Your task to perform on an android device: Open wifi settings Image 0: 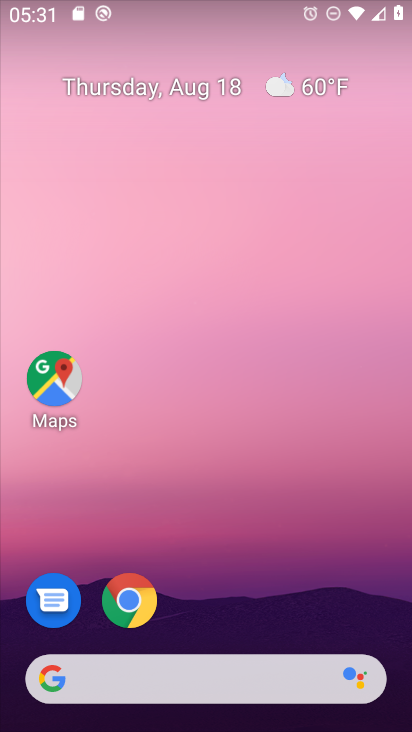
Step 0: press home button
Your task to perform on an android device: Open wifi settings Image 1: 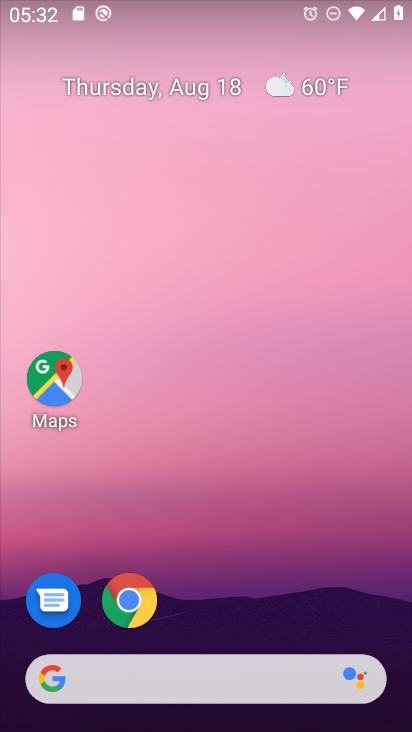
Step 1: drag from (231, 530) to (186, 4)
Your task to perform on an android device: Open wifi settings Image 2: 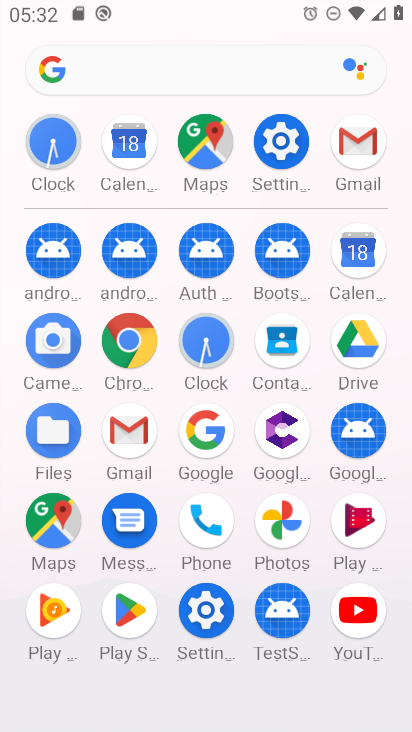
Step 2: click (275, 157)
Your task to perform on an android device: Open wifi settings Image 3: 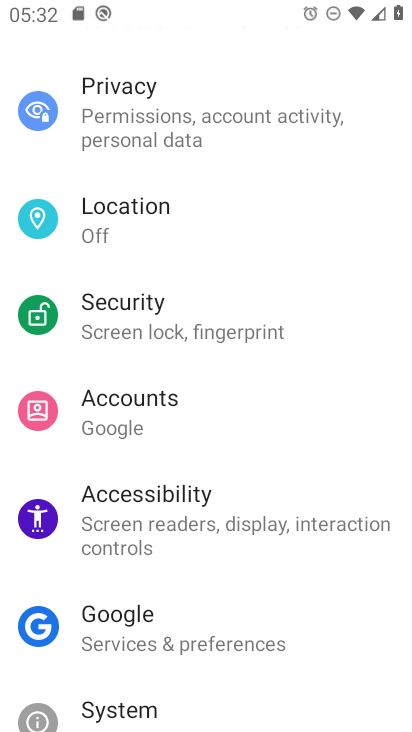
Step 3: drag from (265, 246) to (277, 728)
Your task to perform on an android device: Open wifi settings Image 4: 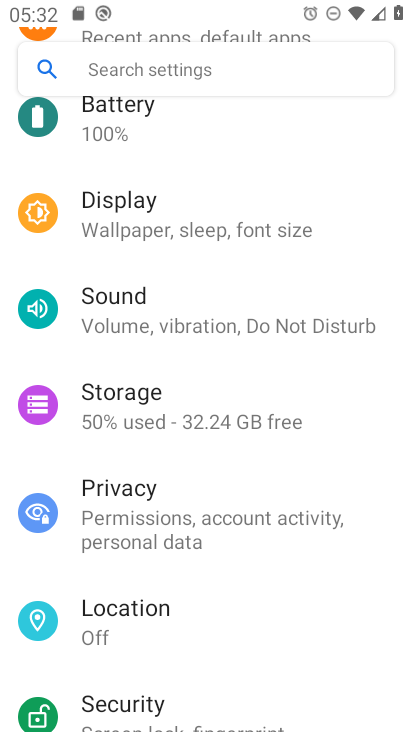
Step 4: drag from (227, 183) to (227, 684)
Your task to perform on an android device: Open wifi settings Image 5: 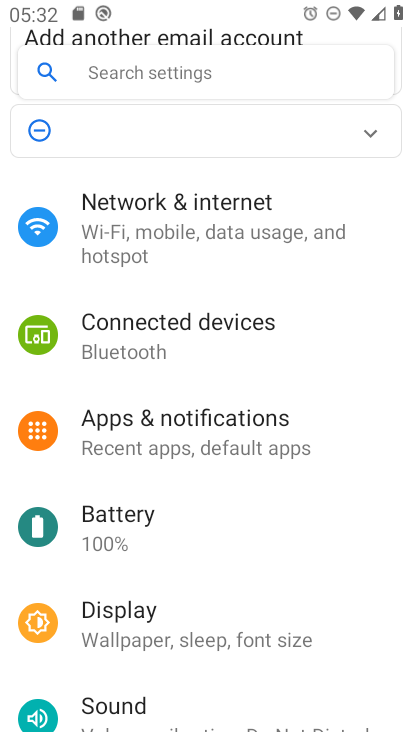
Step 5: click (180, 239)
Your task to perform on an android device: Open wifi settings Image 6: 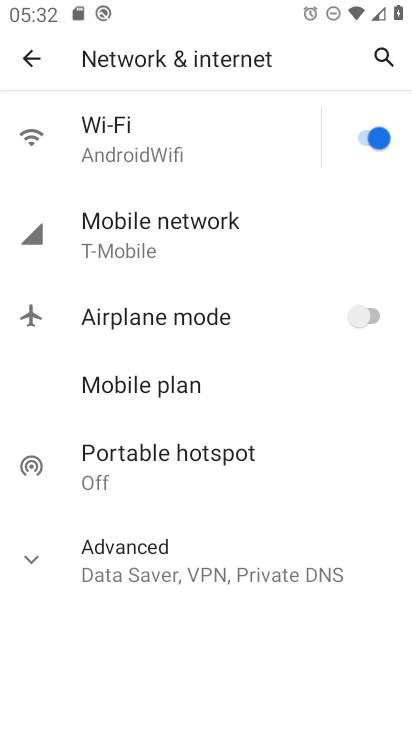
Step 6: click (131, 145)
Your task to perform on an android device: Open wifi settings Image 7: 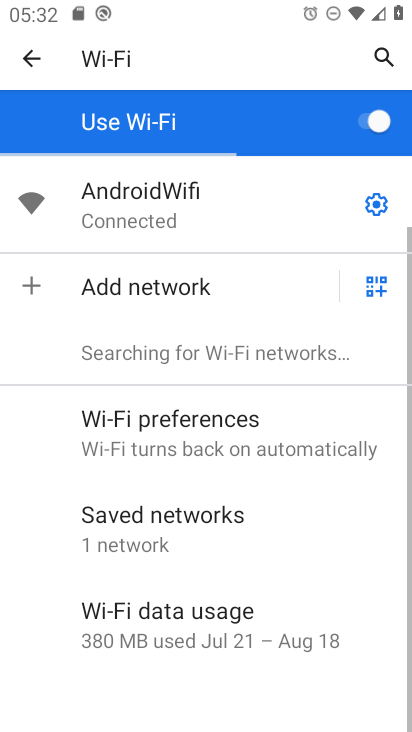
Step 7: click (161, 213)
Your task to perform on an android device: Open wifi settings Image 8: 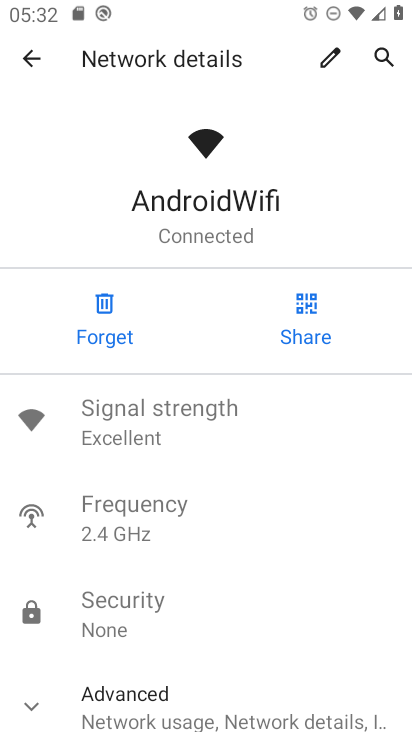
Step 8: task complete